Your task to perform on an android device: turn off improve location accuracy Image 0: 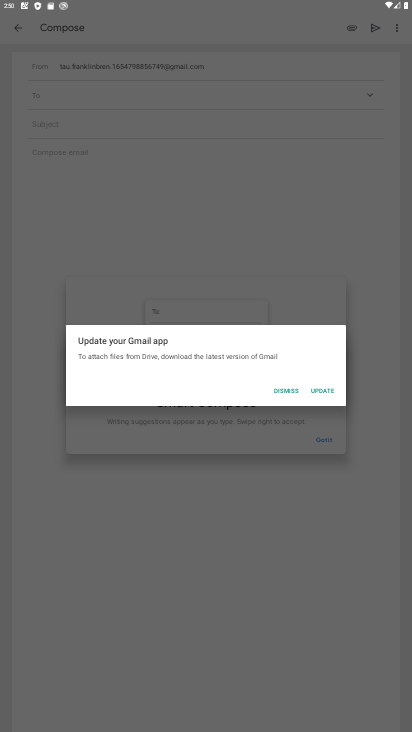
Step 0: press home button
Your task to perform on an android device: turn off improve location accuracy Image 1: 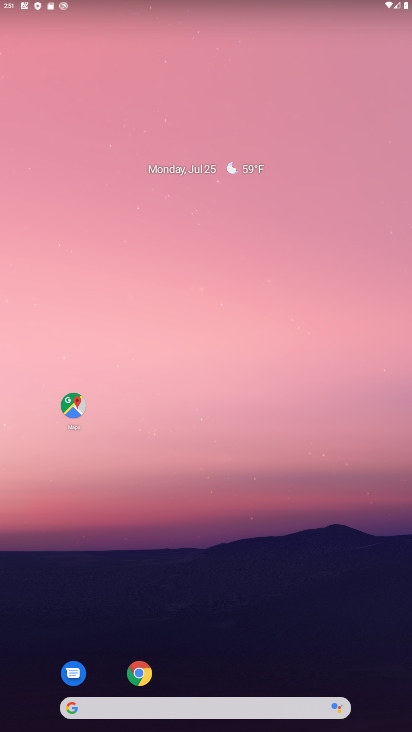
Step 1: drag from (202, 627) to (213, 183)
Your task to perform on an android device: turn off improve location accuracy Image 2: 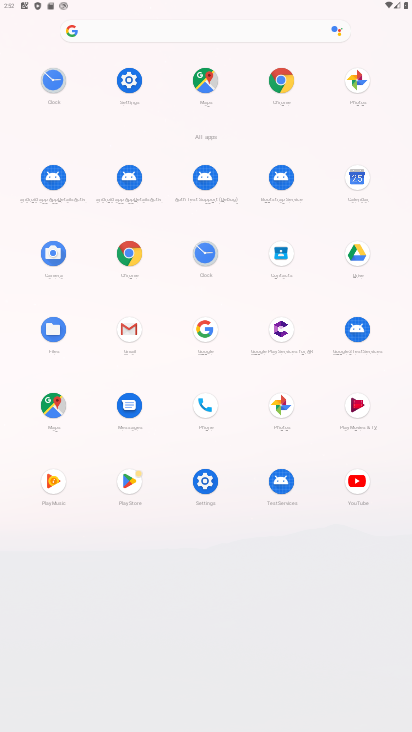
Step 2: click (124, 81)
Your task to perform on an android device: turn off improve location accuracy Image 3: 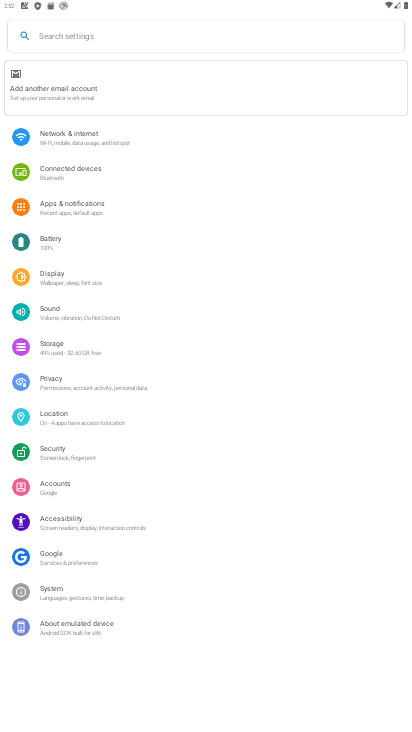
Step 3: click (68, 411)
Your task to perform on an android device: turn off improve location accuracy Image 4: 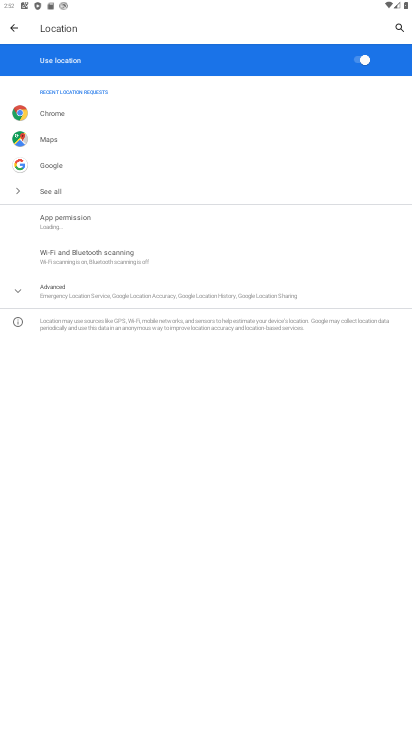
Step 4: click (61, 296)
Your task to perform on an android device: turn off improve location accuracy Image 5: 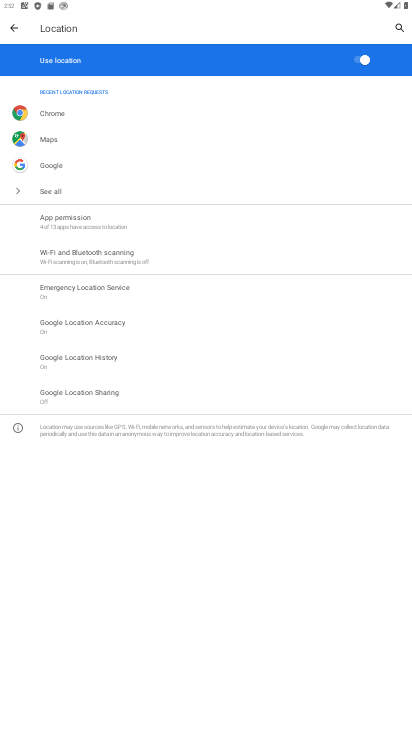
Step 5: click (91, 323)
Your task to perform on an android device: turn off improve location accuracy Image 6: 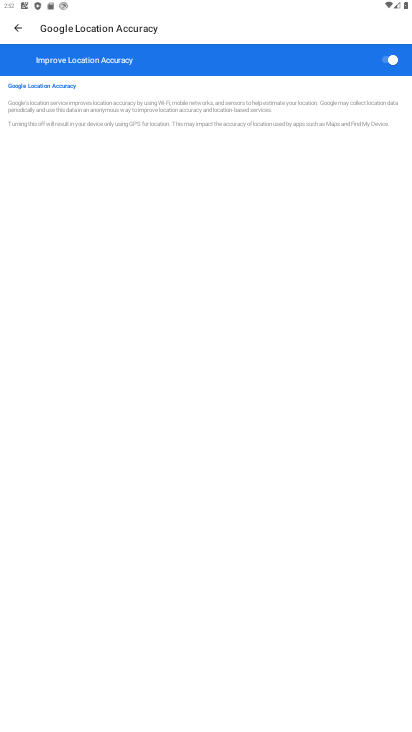
Step 6: click (388, 61)
Your task to perform on an android device: turn off improve location accuracy Image 7: 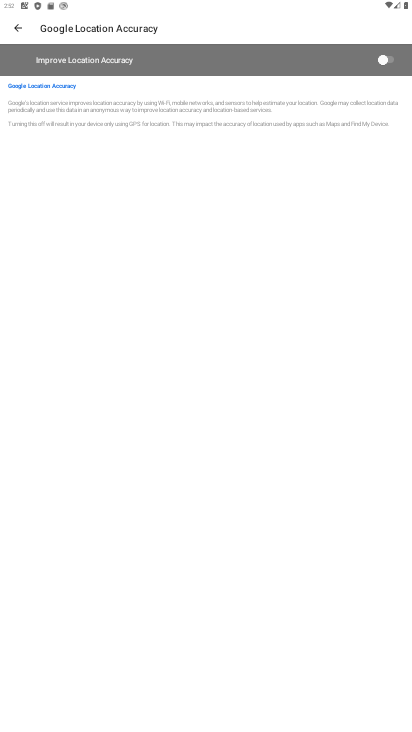
Step 7: task complete